Your task to perform on an android device: See recent photos Image 0: 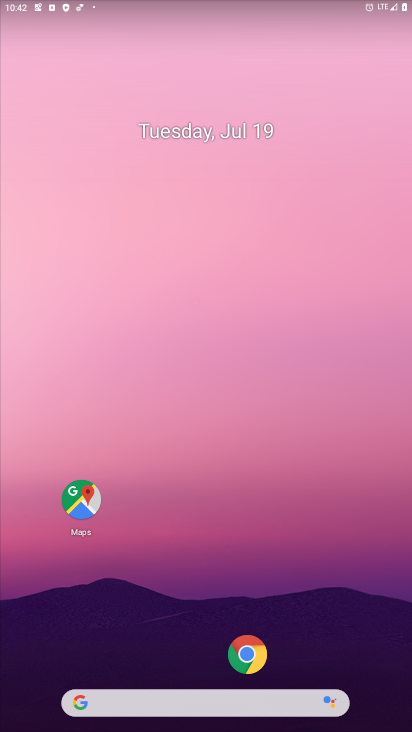
Step 0: drag from (186, 656) to (224, 15)
Your task to perform on an android device: See recent photos Image 1: 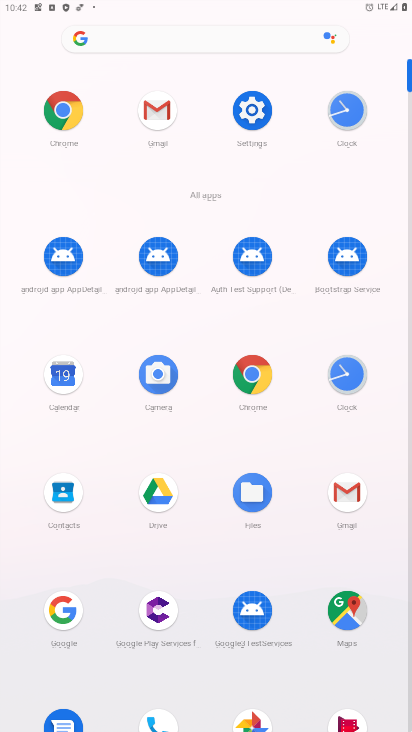
Step 1: click (246, 711)
Your task to perform on an android device: See recent photos Image 2: 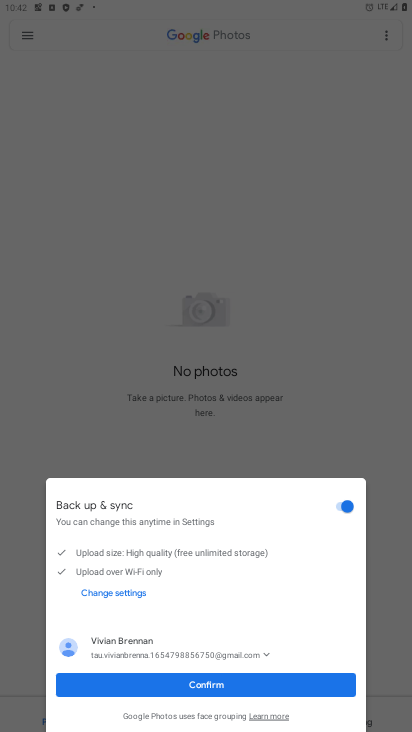
Step 2: click (211, 689)
Your task to perform on an android device: See recent photos Image 3: 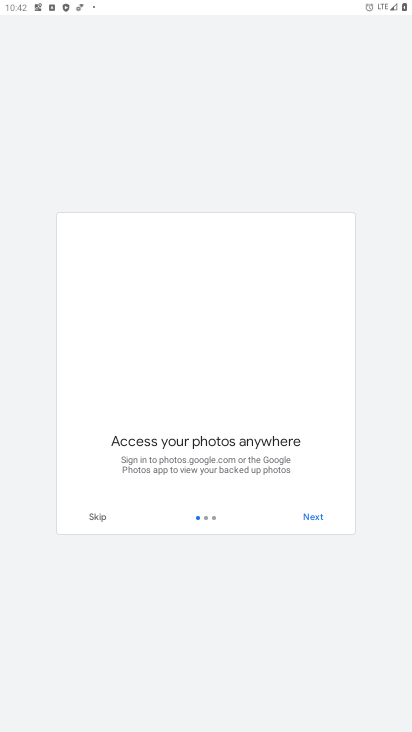
Step 3: task complete